Your task to perform on an android device: Open Google Maps and go to "Timeline" Image 0: 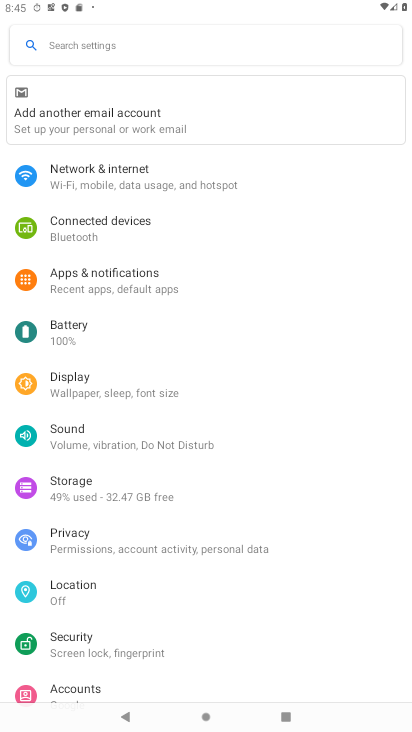
Step 0: press home button
Your task to perform on an android device: Open Google Maps and go to "Timeline" Image 1: 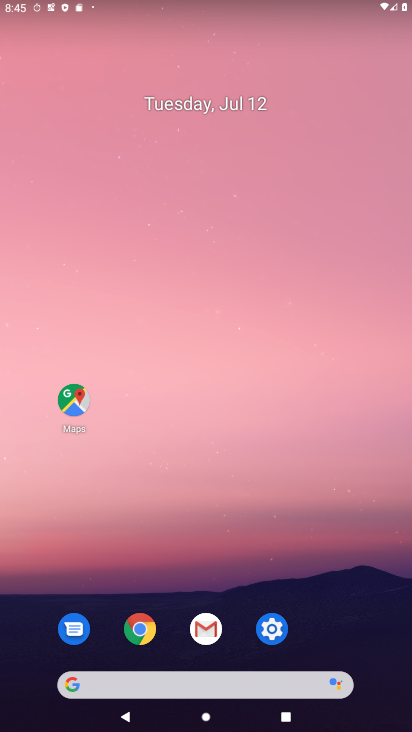
Step 1: click (78, 401)
Your task to perform on an android device: Open Google Maps and go to "Timeline" Image 2: 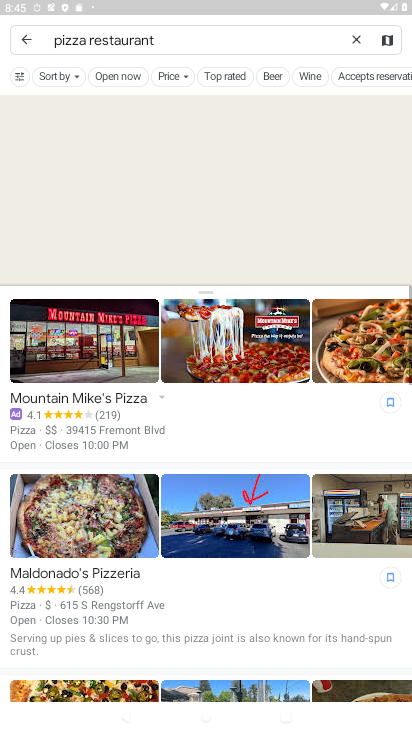
Step 2: click (21, 36)
Your task to perform on an android device: Open Google Maps and go to "Timeline" Image 3: 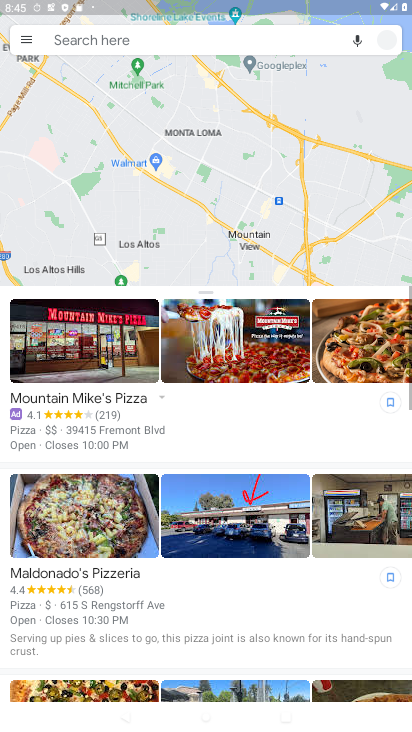
Step 3: click (27, 42)
Your task to perform on an android device: Open Google Maps and go to "Timeline" Image 4: 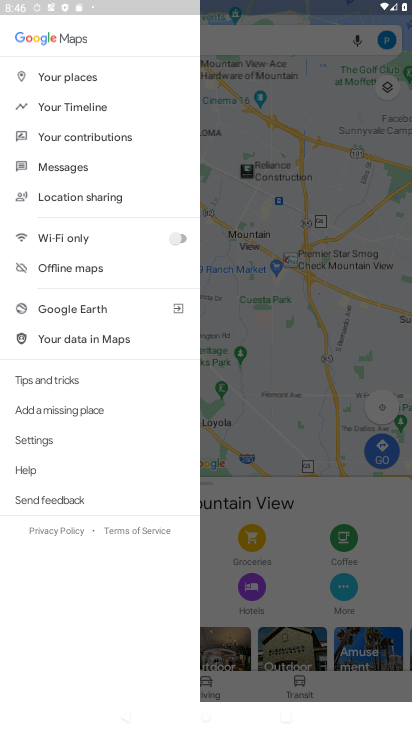
Step 4: click (72, 104)
Your task to perform on an android device: Open Google Maps and go to "Timeline" Image 5: 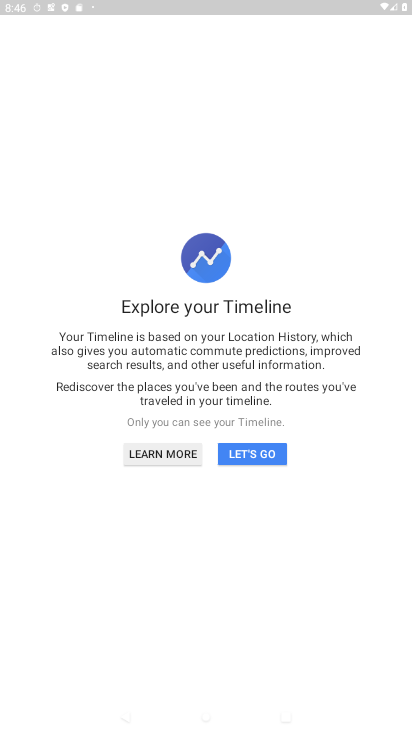
Step 5: click (234, 458)
Your task to perform on an android device: Open Google Maps and go to "Timeline" Image 6: 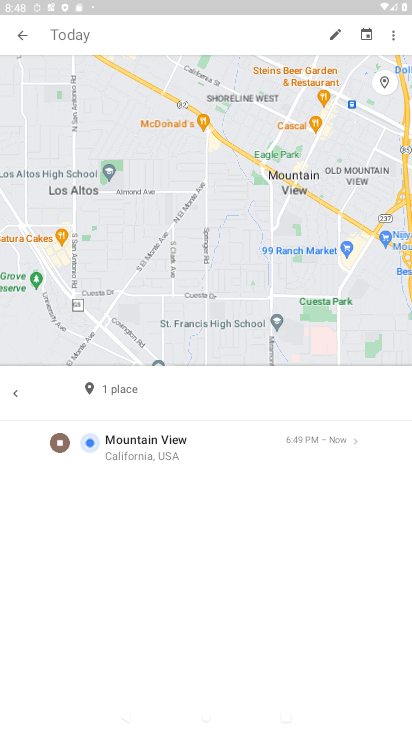
Step 6: task complete